Your task to perform on an android device: Go to wifi settings Image 0: 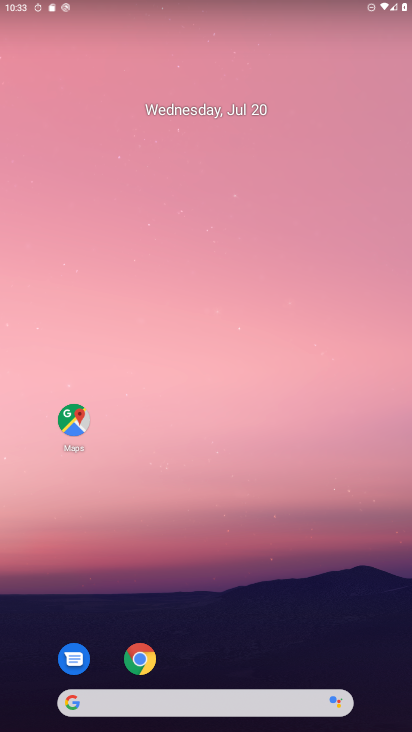
Step 0: drag from (309, 633) to (262, 105)
Your task to perform on an android device: Go to wifi settings Image 1: 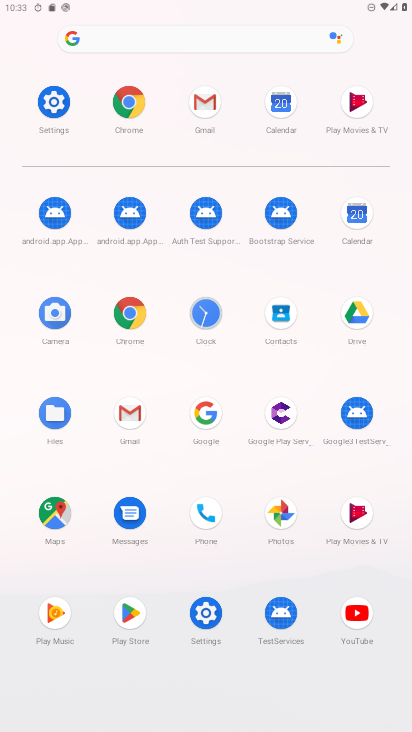
Step 1: click (50, 97)
Your task to perform on an android device: Go to wifi settings Image 2: 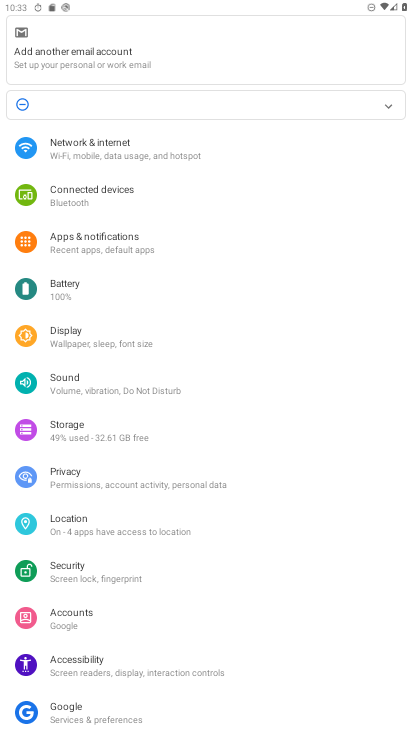
Step 2: click (125, 160)
Your task to perform on an android device: Go to wifi settings Image 3: 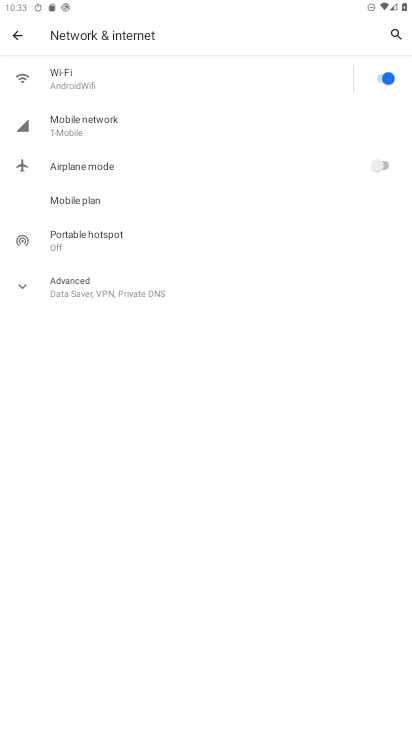
Step 3: click (96, 79)
Your task to perform on an android device: Go to wifi settings Image 4: 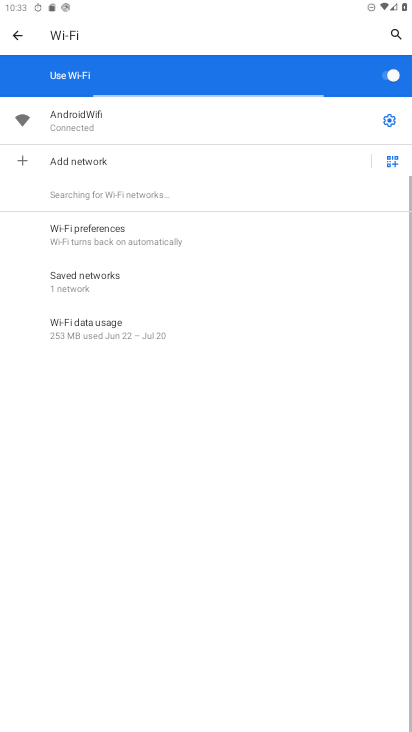
Step 4: click (397, 119)
Your task to perform on an android device: Go to wifi settings Image 5: 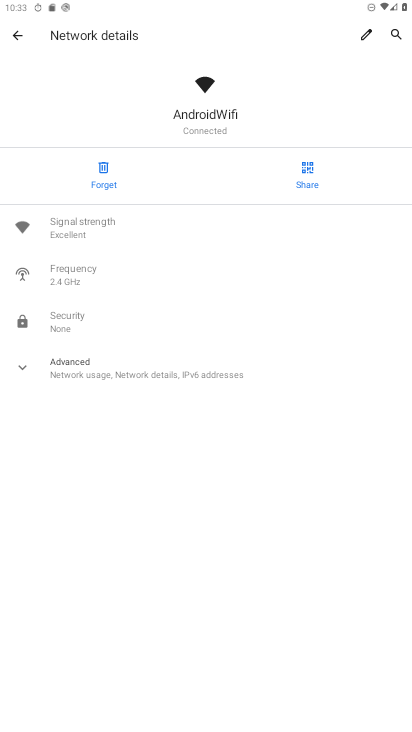
Step 5: task complete